Your task to perform on an android device: turn on wifi Image 0: 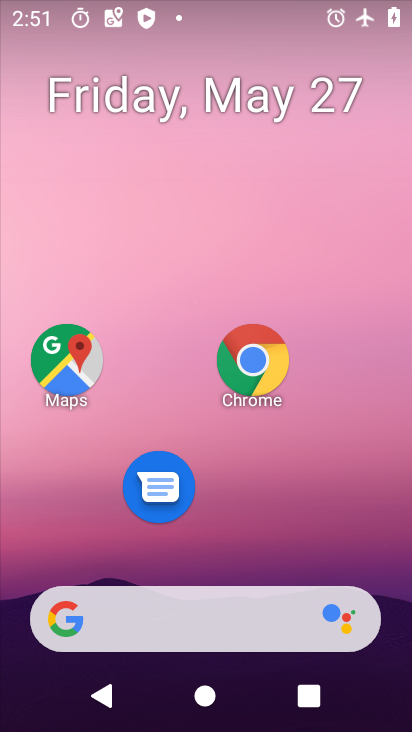
Step 0: drag from (243, 505) to (299, 71)
Your task to perform on an android device: turn on wifi Image 1: 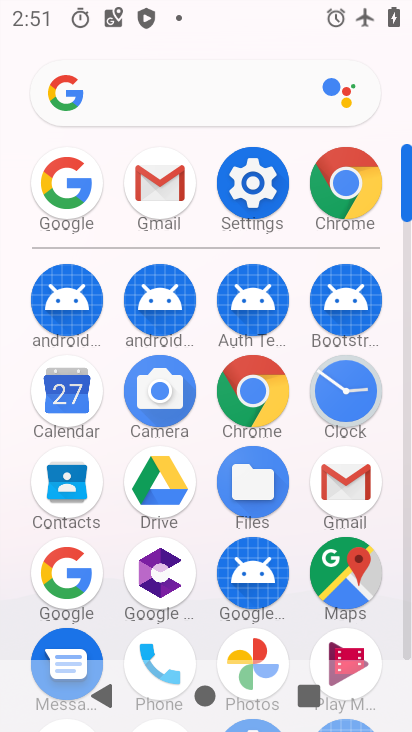
Step 1: click (251, 187)
Your task to perform on an android device: turn on wifi Image 2: 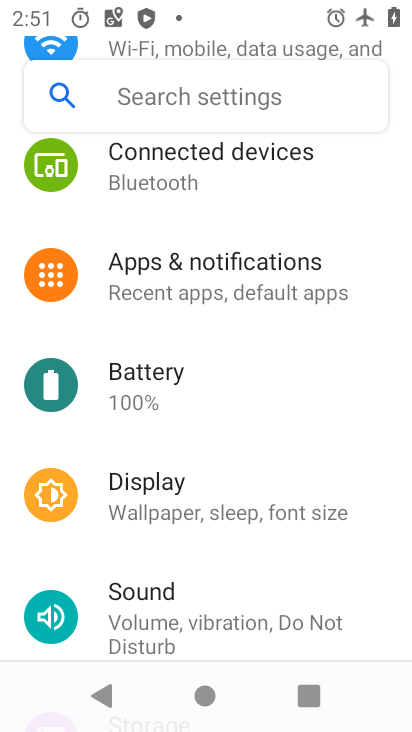
Step 2: drag from (212, 158) to (233, 480)
Your task to perform on an android device: turn on wifi Image 3: 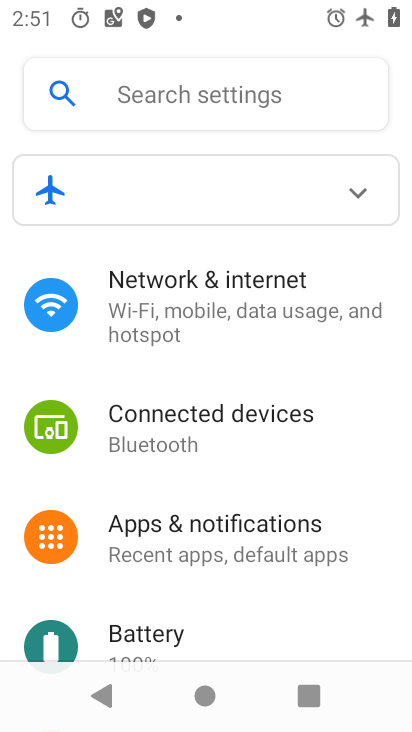
Step 3: click (194, 308)
Your task to perform on an android device: turn on wifi Image 4: 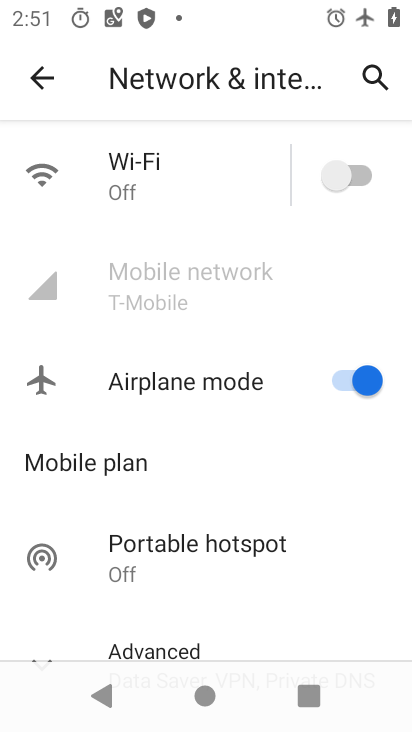
Step 4: click (337, 161)
Your task to perform on an android device: turn on wifi Image 5: 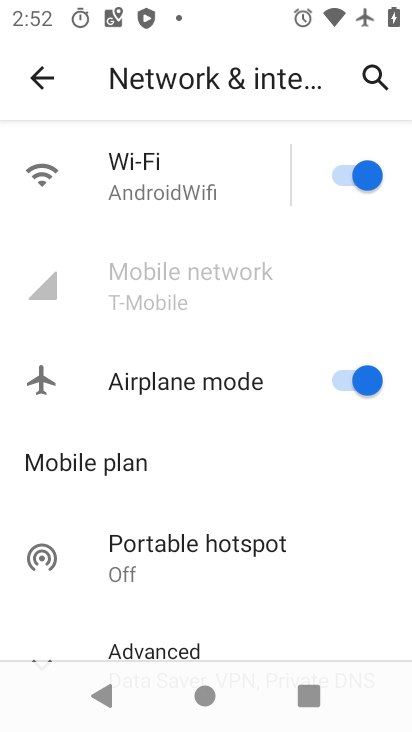
Step 5: task complete